Your task to perform on an android device: Go to internet settings Image 0: 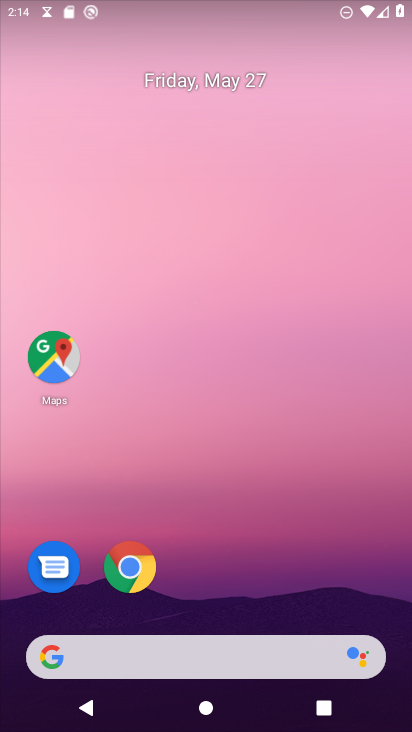
Step 0: drag from (228, 618) to (216, 122)
Your task to perform on an android device: Go to internet settings Image 1: 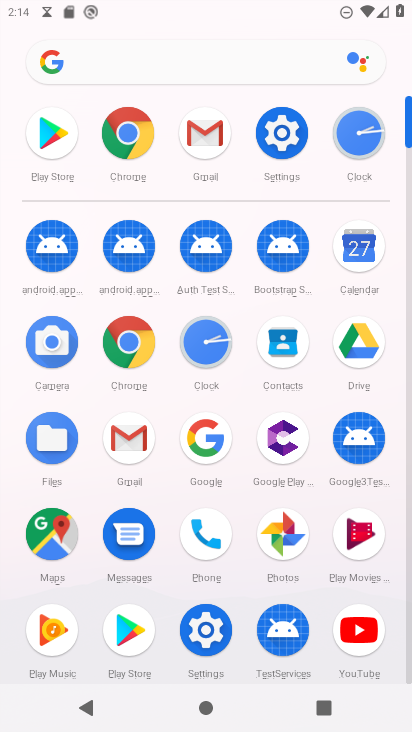
Step 1: click (291, 135)
Your task to perform on an android device: Go to internet settings Image 2: 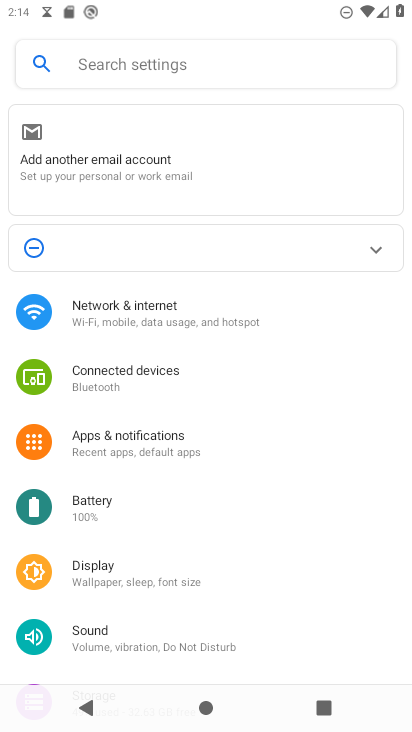
Step 2: click (194, 314)
Your task to perform on an android device: Go to internet settings Image 3: 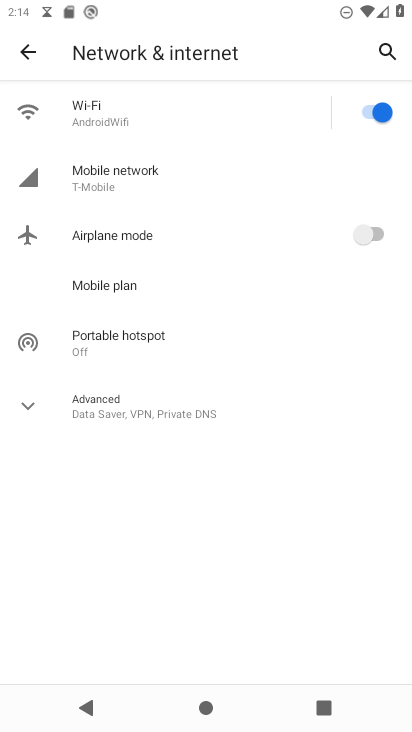
Step 3: task complete